Your task to perform on an android device: Go to display settings Image 0: 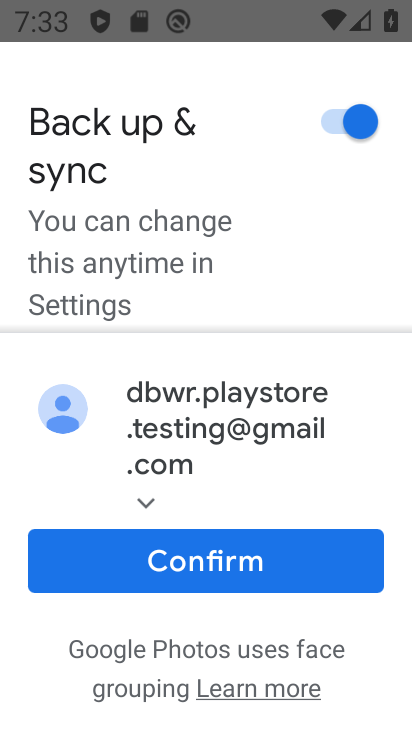
Step 0: press home button
Your task to perform on an android device: Go to display settings Image 1: 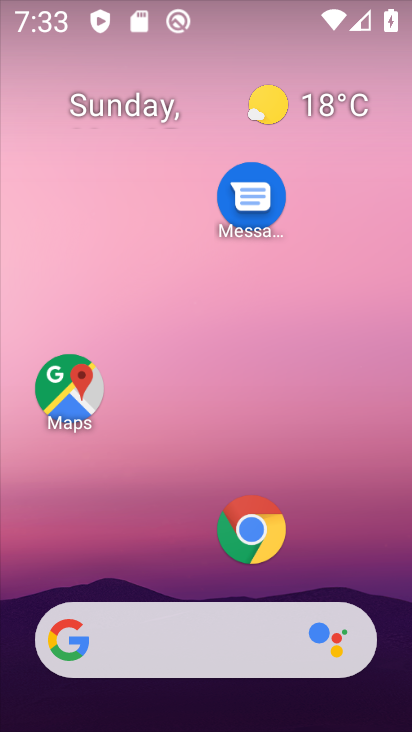
Step 1: drag from (193, 556) to (197, 111)
Your task to perform on an android device: Go to display settings Image 2: 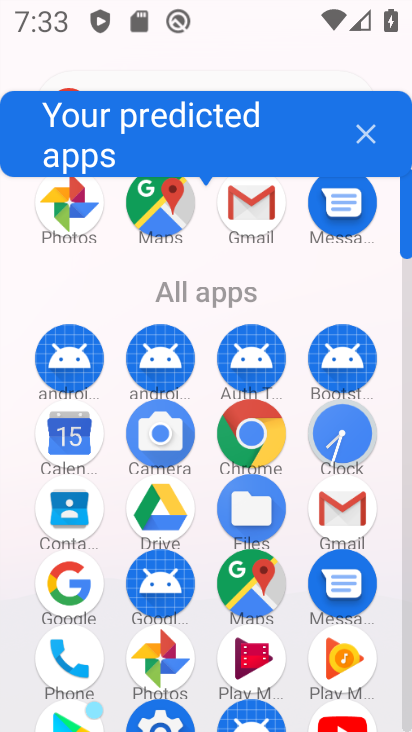
Step 2: click (165, 720)
Your task to perform on an android device: Go to display settings Image 3: 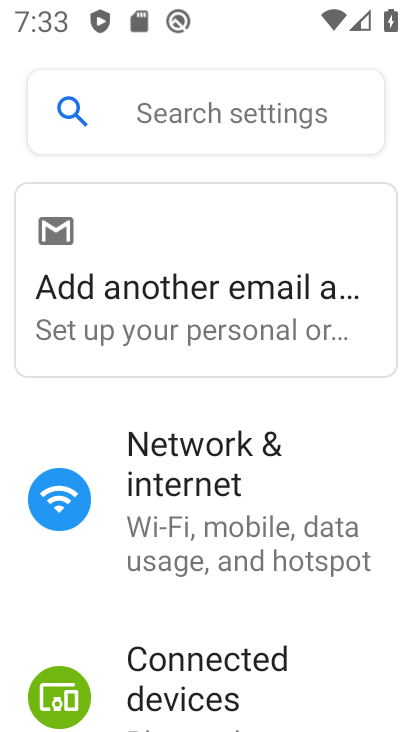
Step 3: drag from (229, 639) to (268, 232)
Your task to perform on an android device: Go to display settings Image 4: 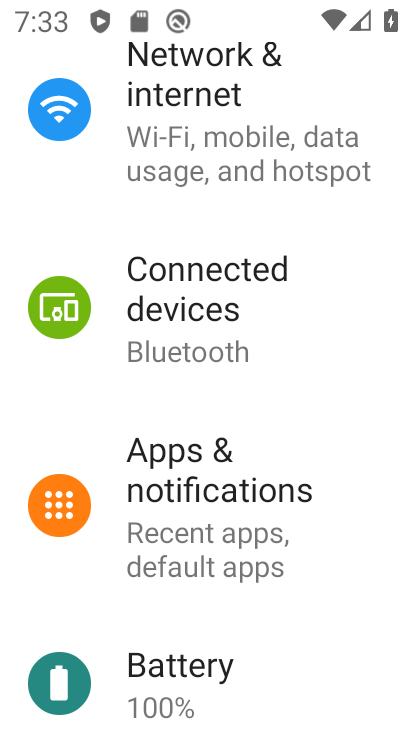
Step 4: click (342, 260)
Your task to perform on an android device: Go to display settings Image 5: 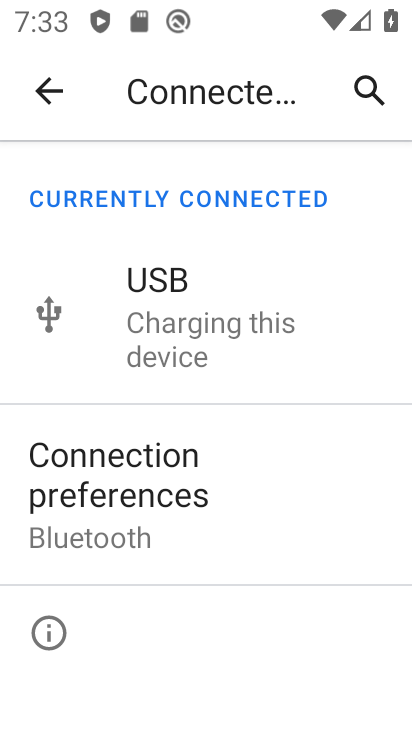
Step 5: click (49, 91)
Your task to perform on an android device: Go to display settings Image 6: 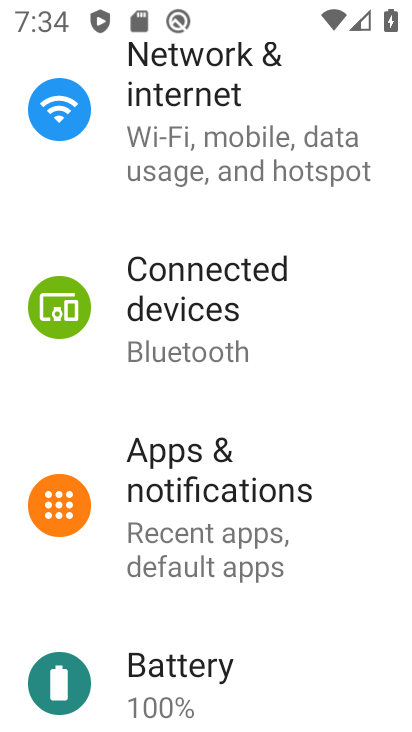
Step 6: click (357, 259)
Your task to perform on an android device: Go to display settings Image 7: 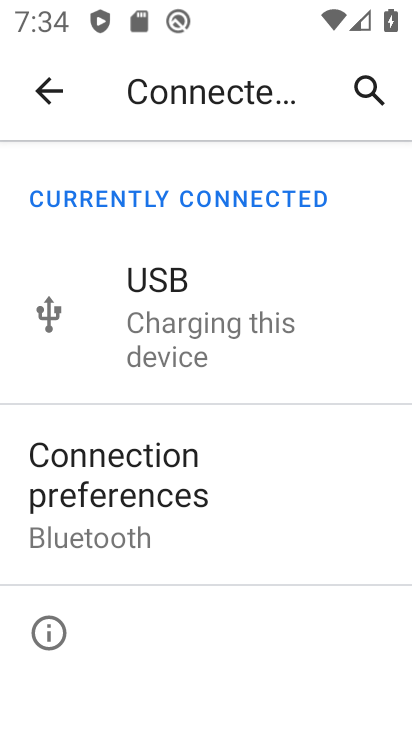
Step 7: click (32, 89)
Your task to perform on an android device: Go to display settings Image 8: 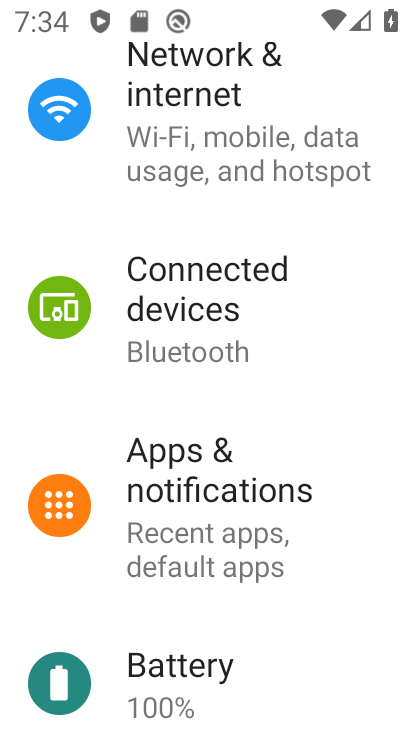
Step 8: drag from (362, 718) to (346, 273)
Your task to perform on an android device: Go to display settings Image 9: 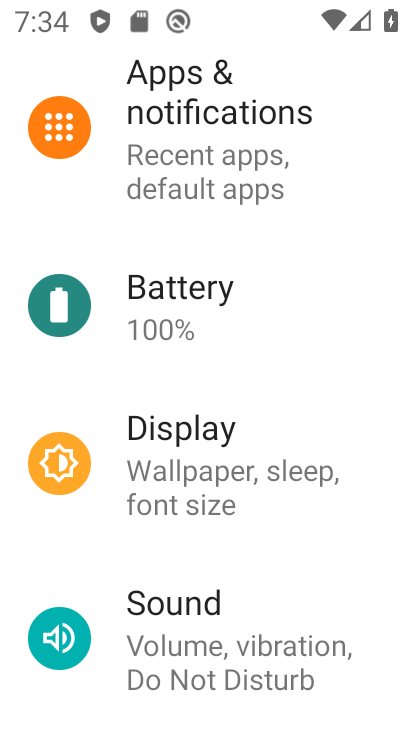
Step 9: click (182, 465)
Your task to perform on an android device: Go to display settings Image 10: 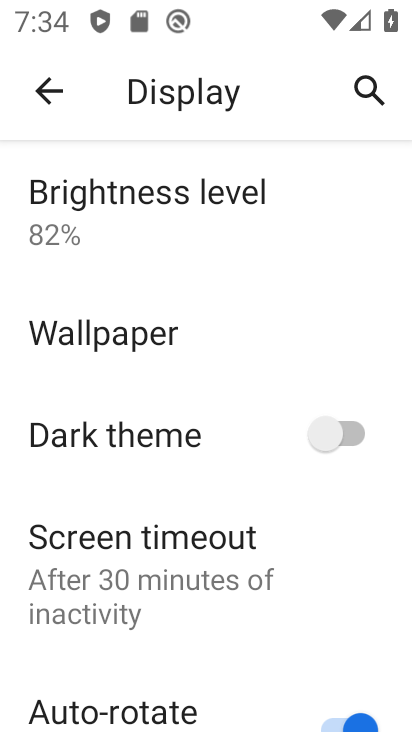
Step 10: click (162, 482)
Your task to perform on an android device: Go to display settings Image 11: 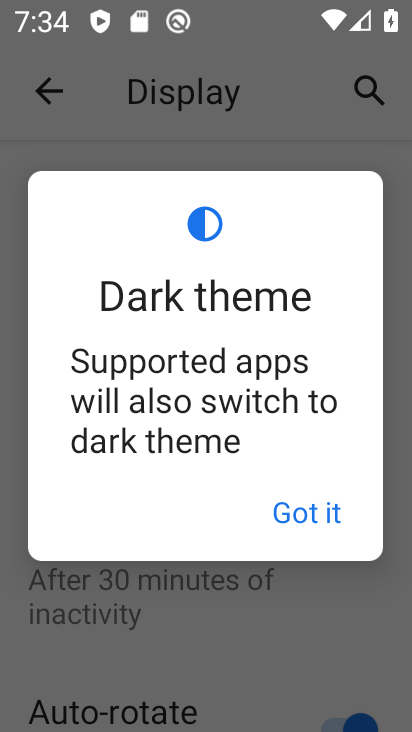
Step 11: drag from (193, 710) to (227, 317)
Your task to perform on an android device: Go to display settings Image 12: 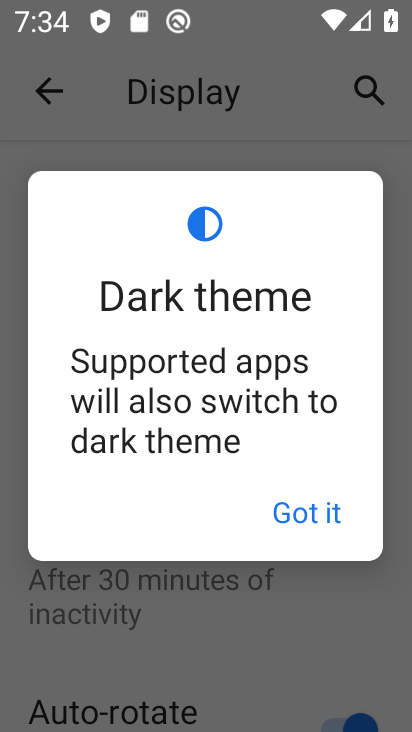
Step 12: click (312, 520)
Your task to perform on an android device: Go to display settings Image 13: 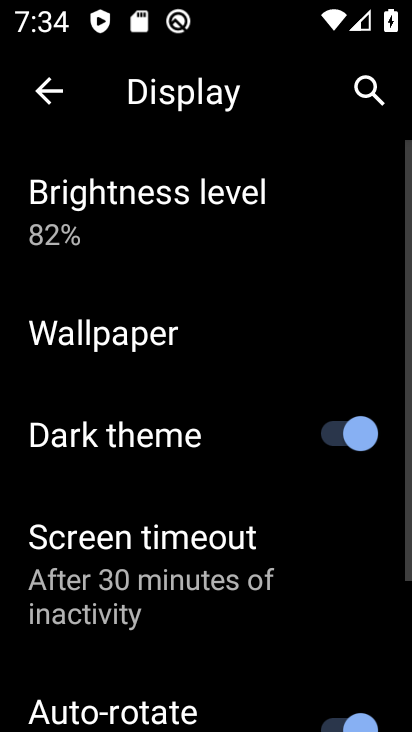
Step 13: drag from (189, 674) to (241, 277)
Your task to perform on an android device: Go to display settings Image 14: 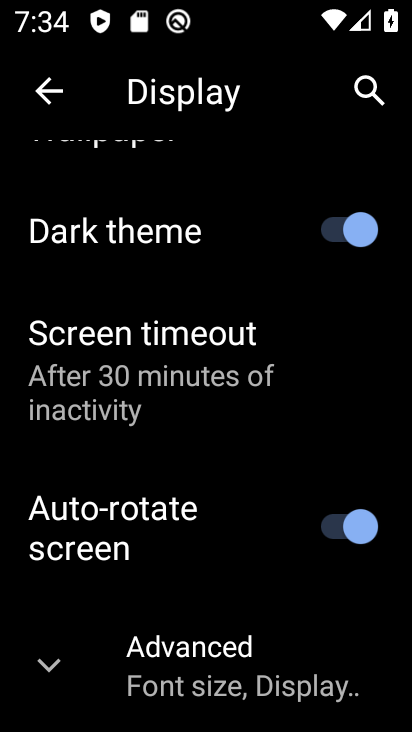
Step 14: click (51, 661)
Your task to perform on an android device: Go to display settings Image 15: 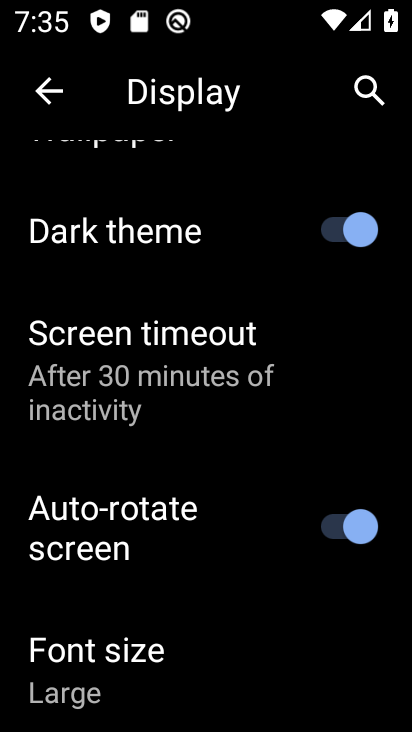
Step 15: task complete